Your task to perform on an android device: Search for Mexican restaurants on Maps Image 0: 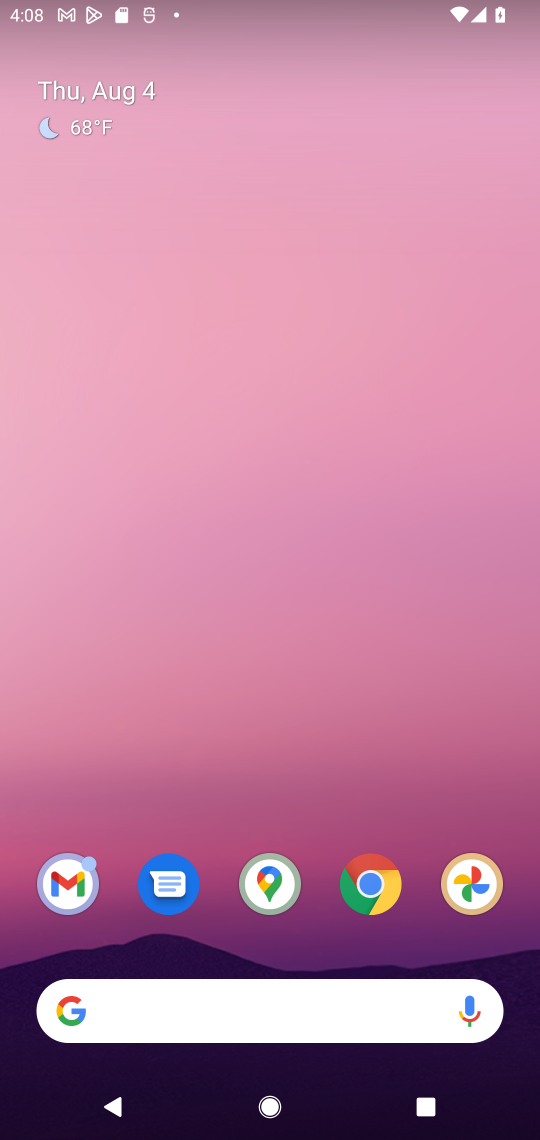
Step 0: click (288, 886)
Your task to perform on an android device: Search for Mexican restaurants on Maps Image 1: 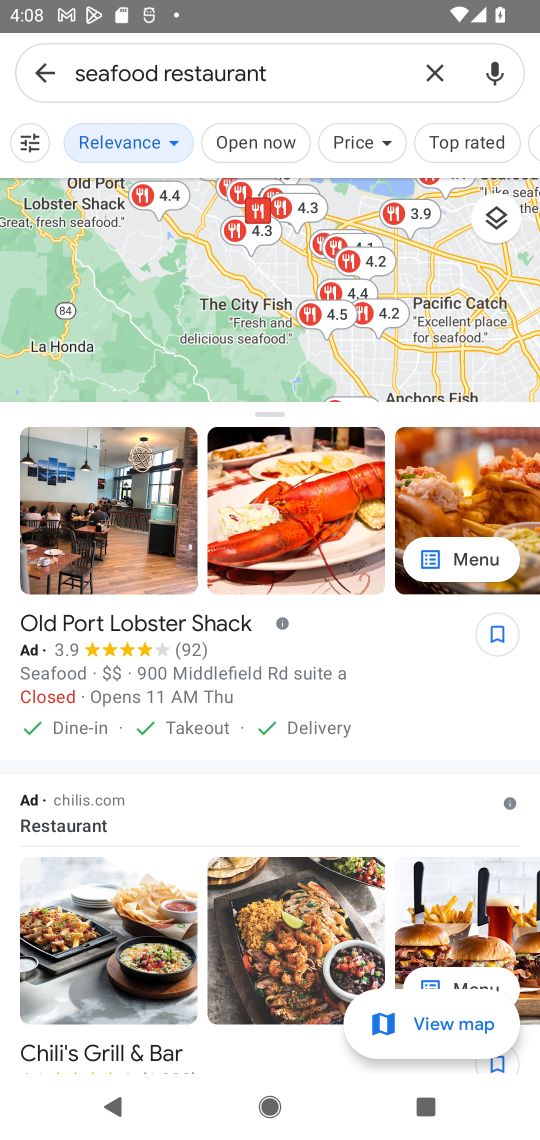
Step 1: click (433, 87)
Your task to perform on an android device: Search for Mexican restaurants on Maps Image 2: 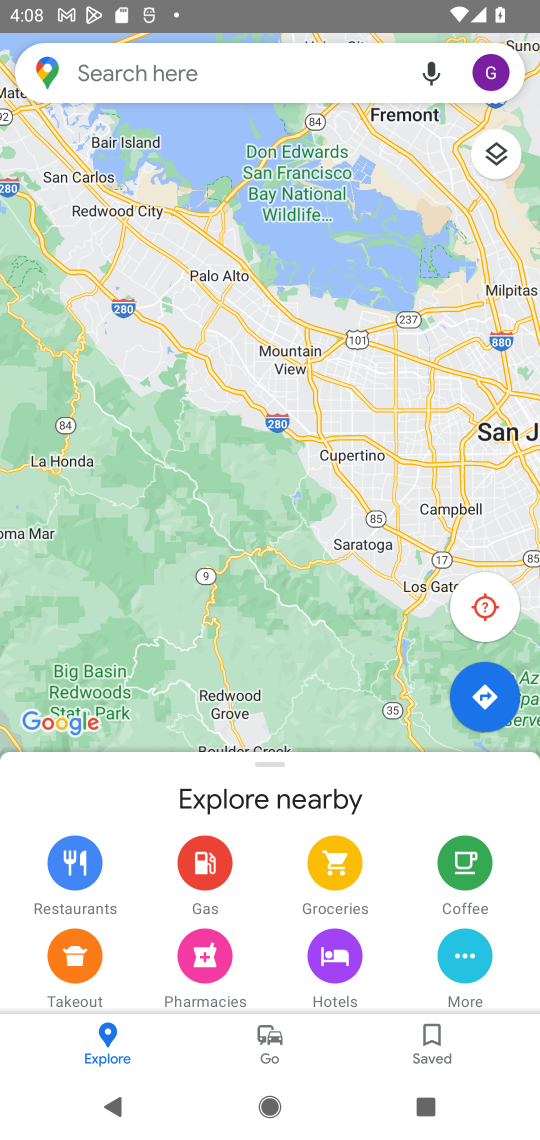
Step 2: click (218, 76)
Your task to perform on an android device: Search for Mexican restaurants on Maps Image 3: 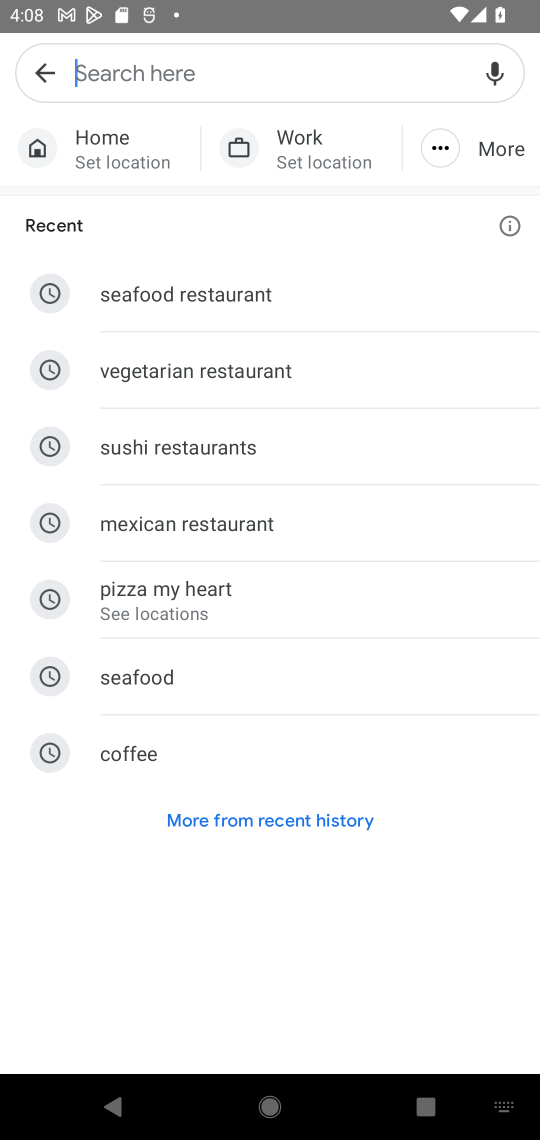
Step 3: click (250, 530)
Your task to perform on an android device: Search for Mexican restaurants on Maps Image 4: 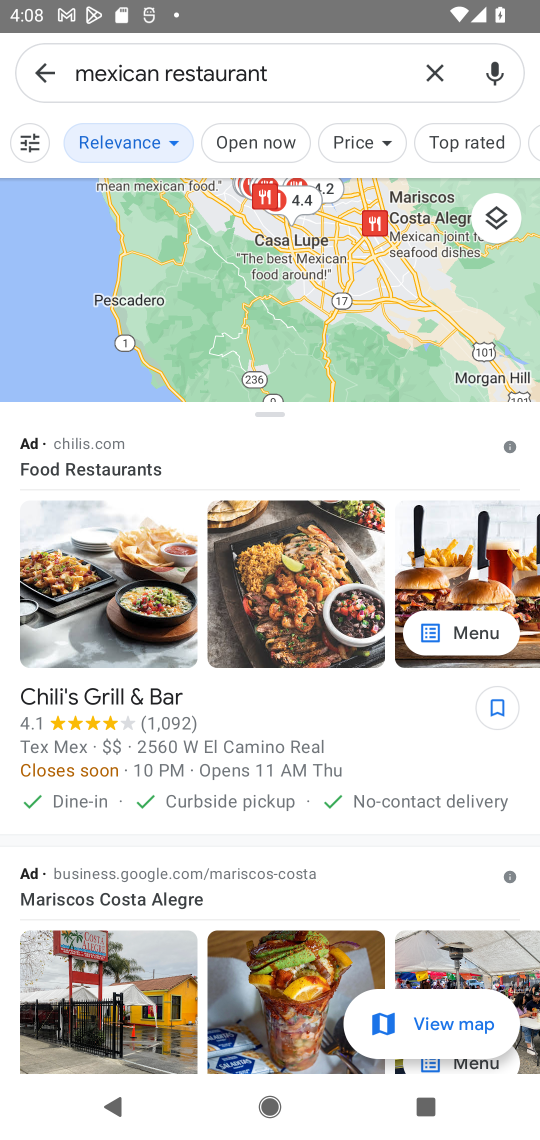
Step 4: task complete